Your task to perform on an android device: move an email to a new category in the gmail app Image 0: 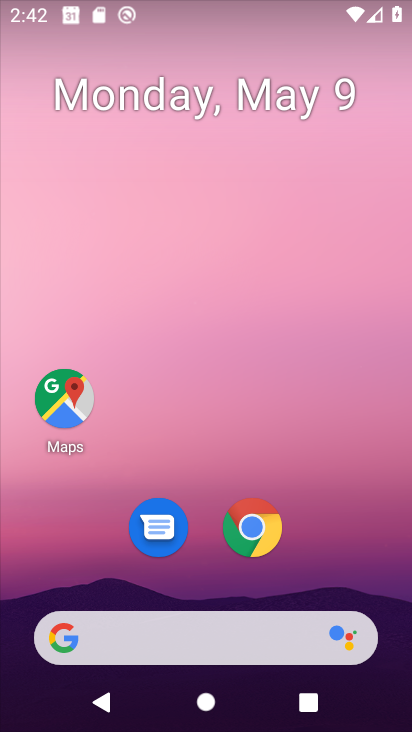
Step 0: drag from (248, 613) to (295, 91)
Your task to perform on an android device: move an email to a new category in the gmail app Image 1: 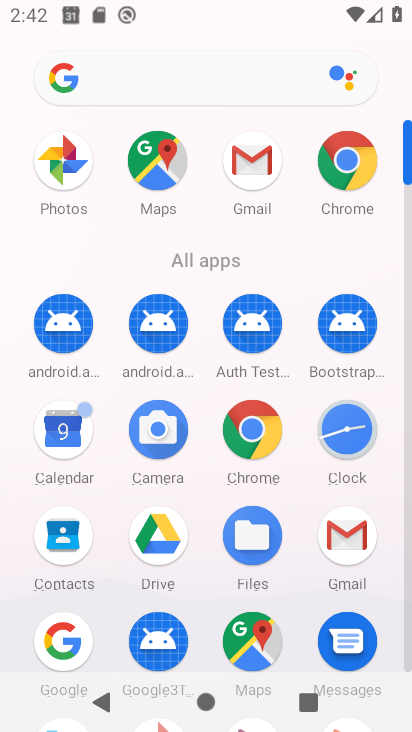
Step 1: click (347, 547)
Your task to perform on an android device: move an email to a new category in the gmail app Image 2: 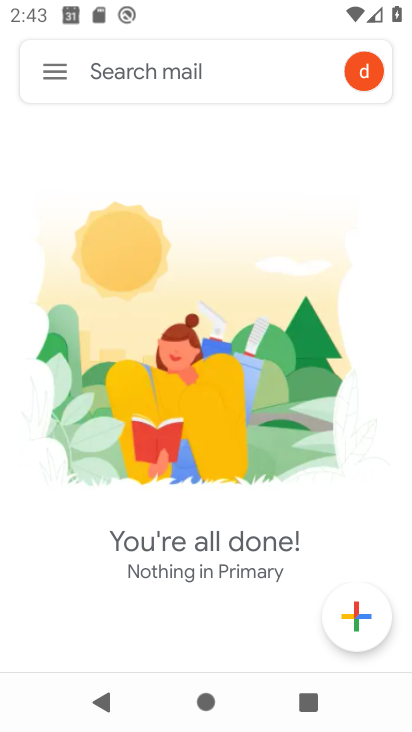
Step 2: click (50, 75)
Your task to perform on an android device: move an email to a new category in the gmail app Image 3: 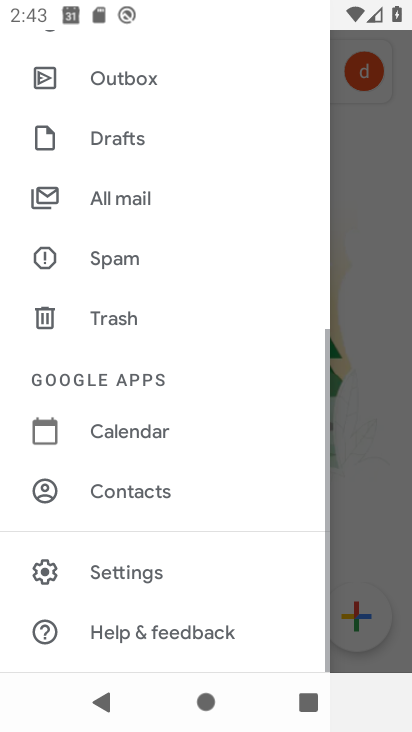
Step 3: click (139, 203)
Your task to perform on an android device: move an email to a new category in the gmail app Image 4: 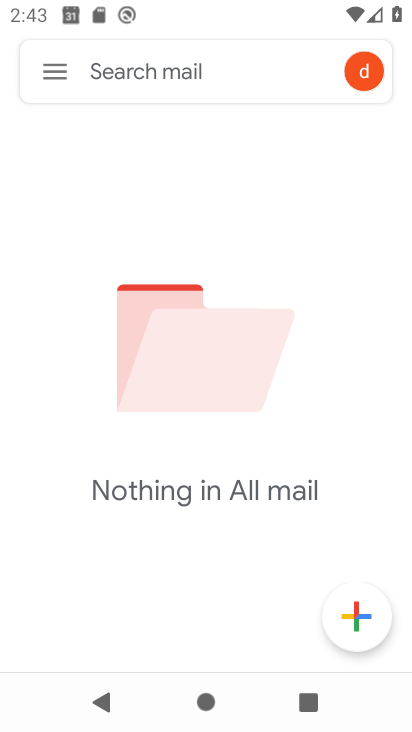
Step 4: task complete